Your task to perform on an android device: Go to settings Image 0: 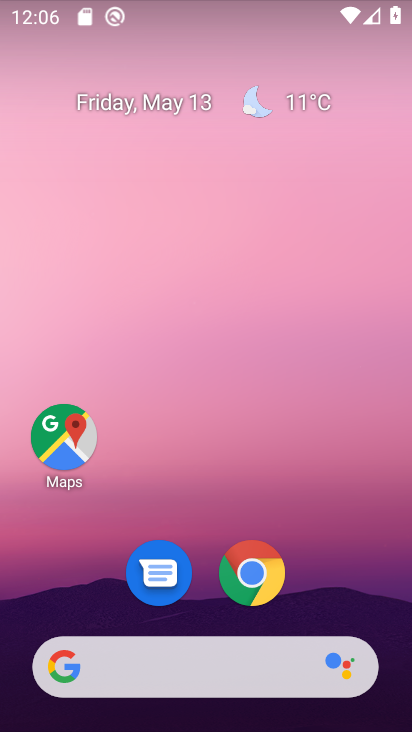
Step 0: click (256, 156)
Your task to perform on an android device: Go to settings Image 1: 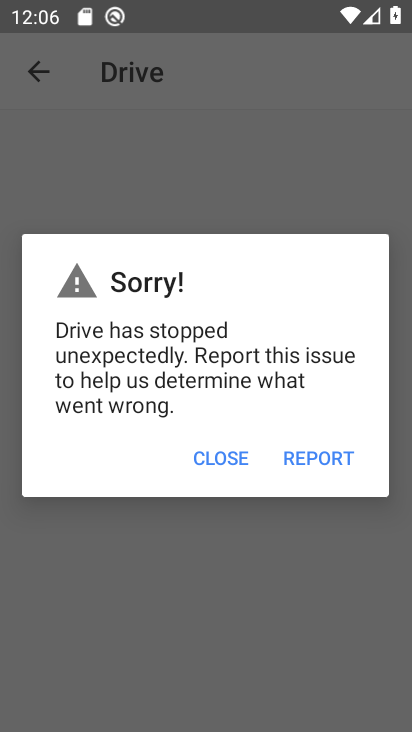
Step 1: press home button
Your task to perform on an android device: Go to settings Image 2: 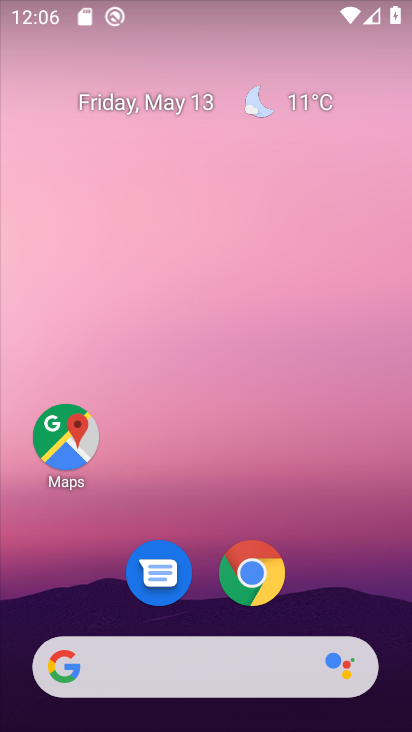
Step 2: drag from (346, 540) to (241, 115)
Your task to perform on an android device: Go to settings Image 3: 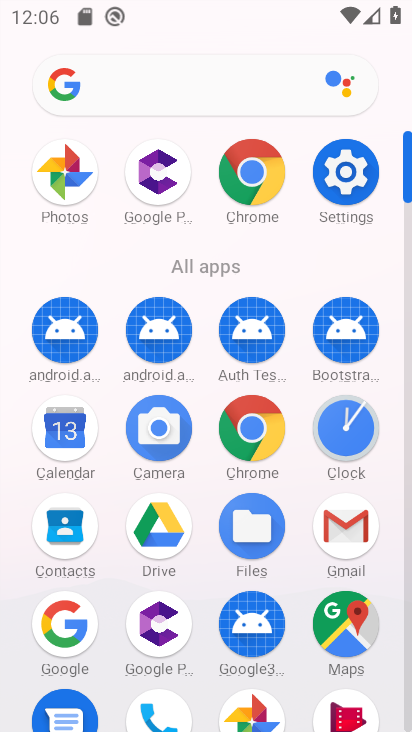
Step 3: click (363, 172)
Your task to perform on an android device: Go to settings Image 4: 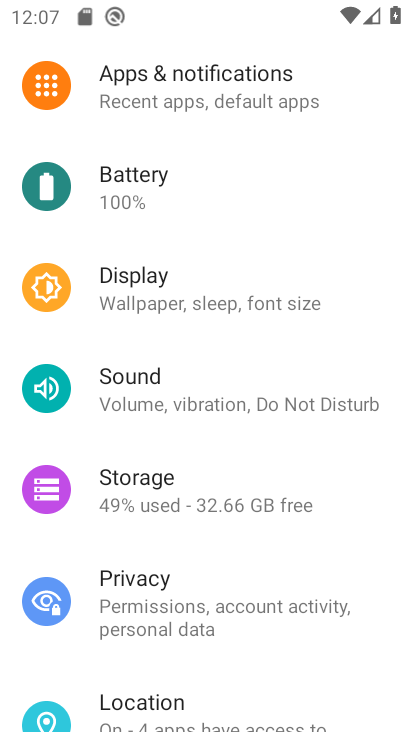
Step 4: task complete